Your task to perform on an android device: What's the weather today? Image 0: 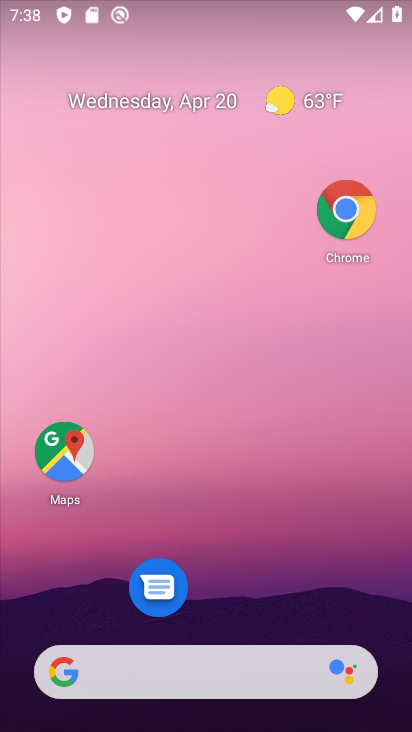
Step 0: click (141, 113)
Your task to perform on an android device: What's the weather today? Image 1: 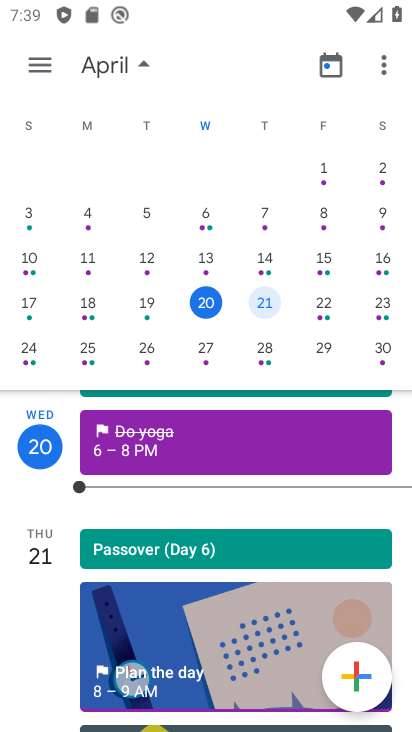
Step 1: press home button
Your task to perform on an android device: What's the weather today? Image 2: 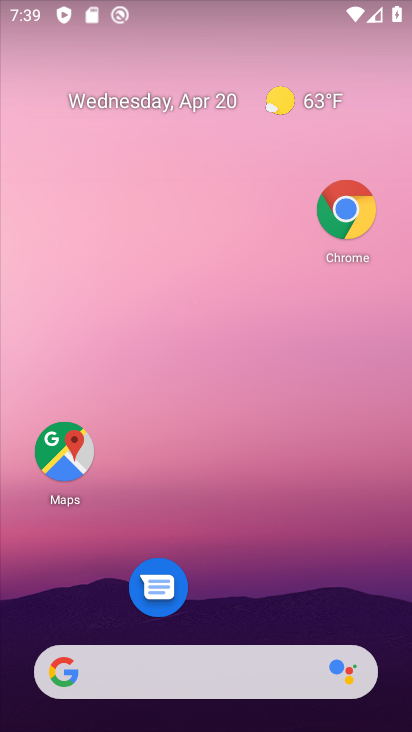
Step 2: click (312, 103)
Your task to perform on an android device: What's the weather today? Image 3: 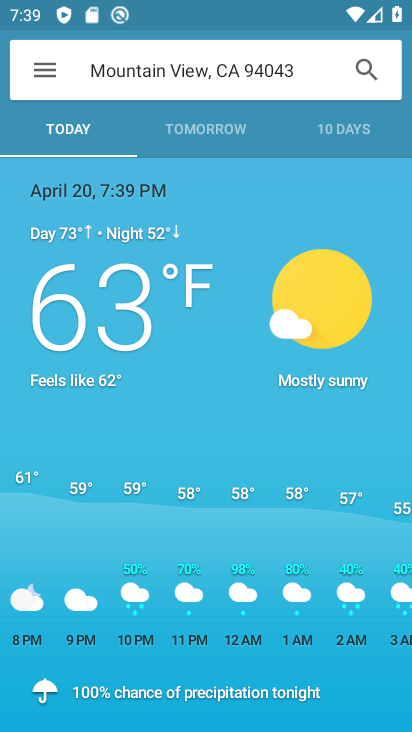
Step 3: task complete